Your task to perform on an android device: toggle priority inbox in the gmail app Image 0: 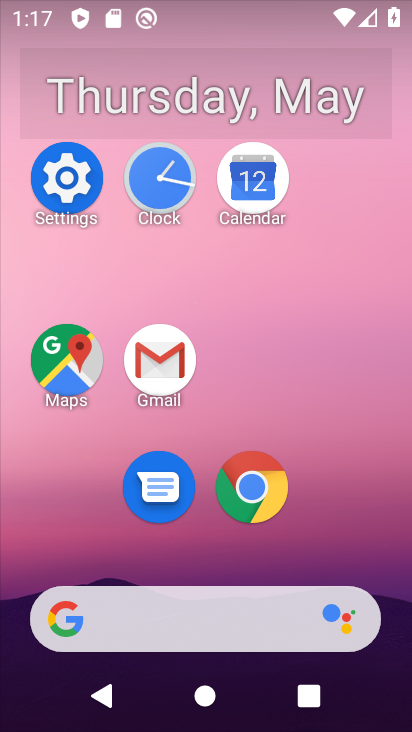
Step 0: click (175, 371)
Your task to perform on an android device: toggle priority inbox in the gmail app Image 1: 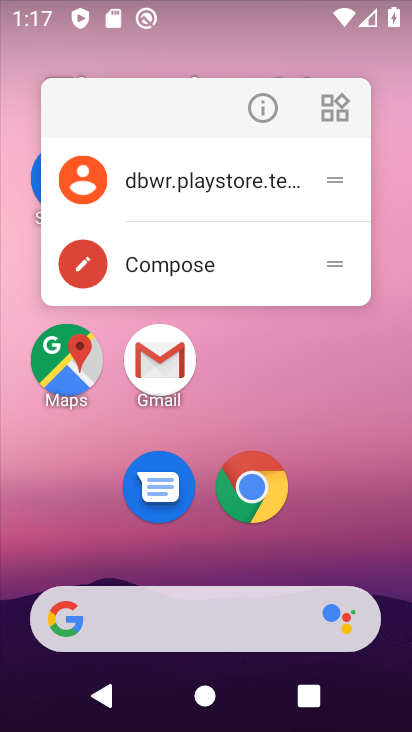
Step 1: click (175, 371)
Your task to perform on an android device: toggle priority inbox in the gmail app Image 2: 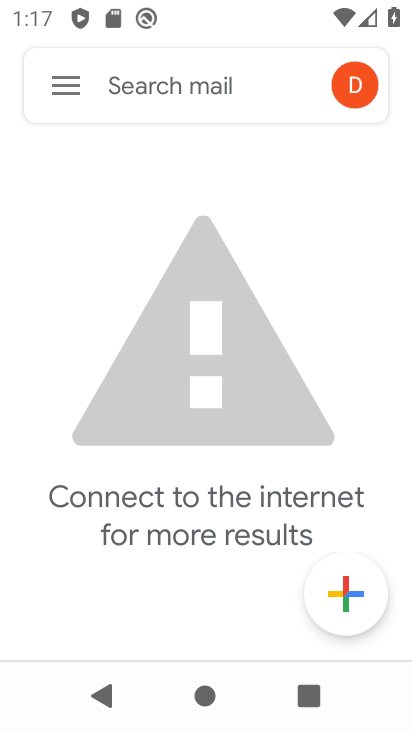
Step 2: click (70, 88)
Your task to perform on an android device: toggle priority inbox in the gmail app Image 3: 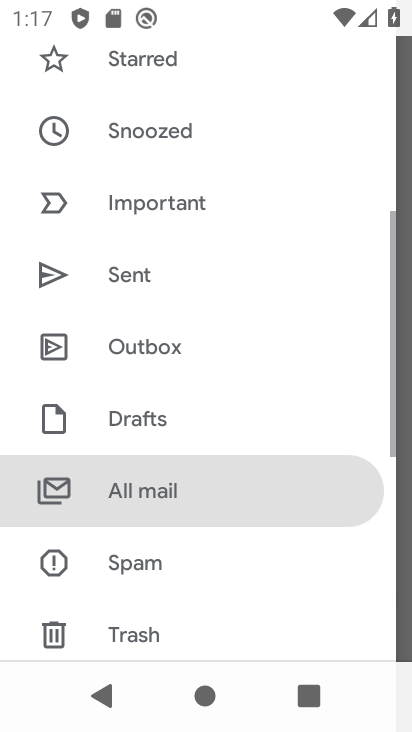
Step 3: drag from (218, 552) to (245, 164)
Your task to perform on an android device: toggle priority inbox in the gmail app Image 4: 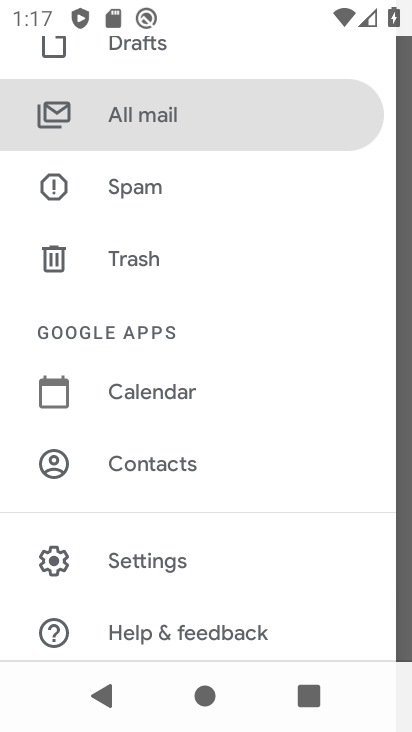
Step 4: click (186, 532)
Your task to perform on an android device: toggle priority inbox in the gmail app Image 5: 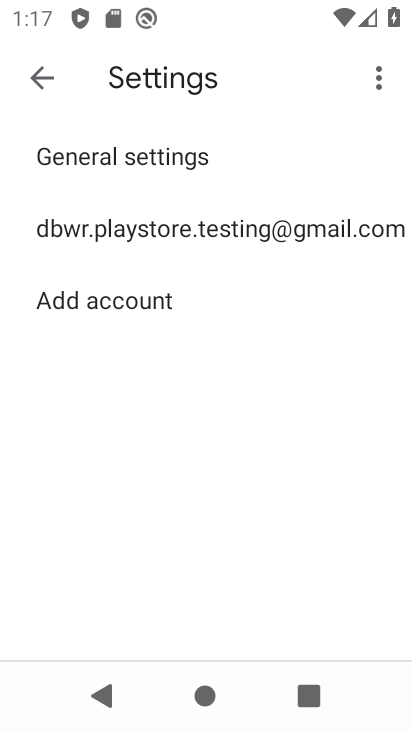
Step 5: click (204, 220)
Your task to perform on an android device: toggle priority inbox in the gmail app Image 6: 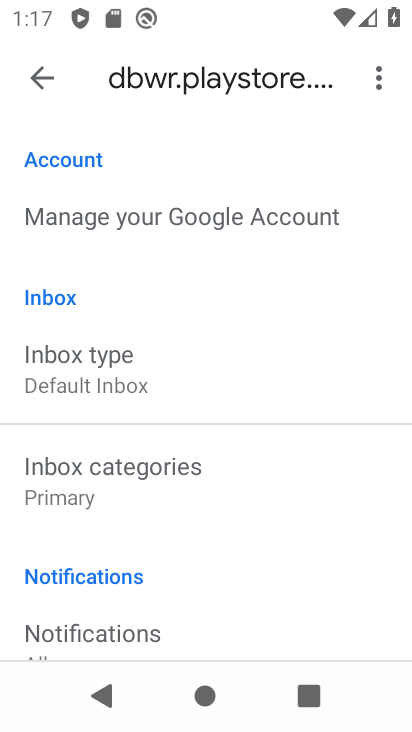
Step 6: click (141, 366)
Your task to perform on an android device: toggle priority inbox in the gmail app Image 7: 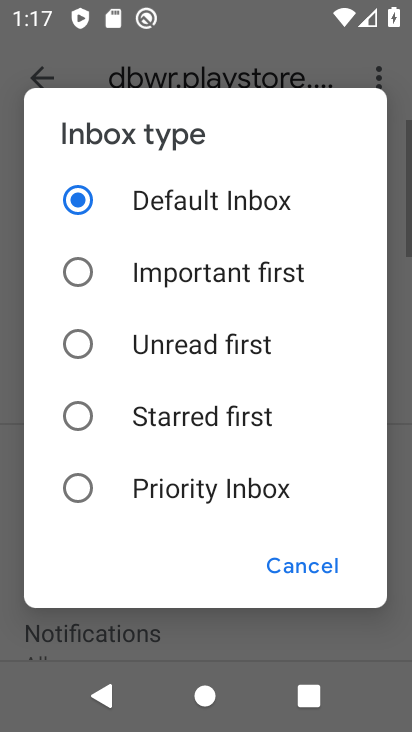
Step 7: click (170, 495)
Your task to perform on an android device: toggle priority inbox in the gmail app Image 8: 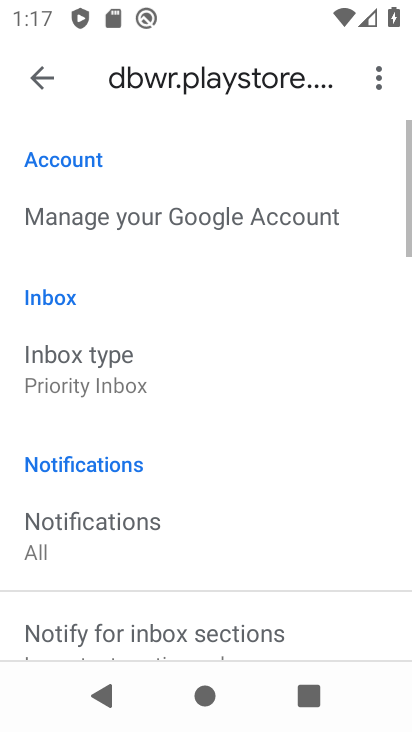
Step 8: task complete